Your task to perform on an android device: turn off notifications settings in the gmail app Image 0: 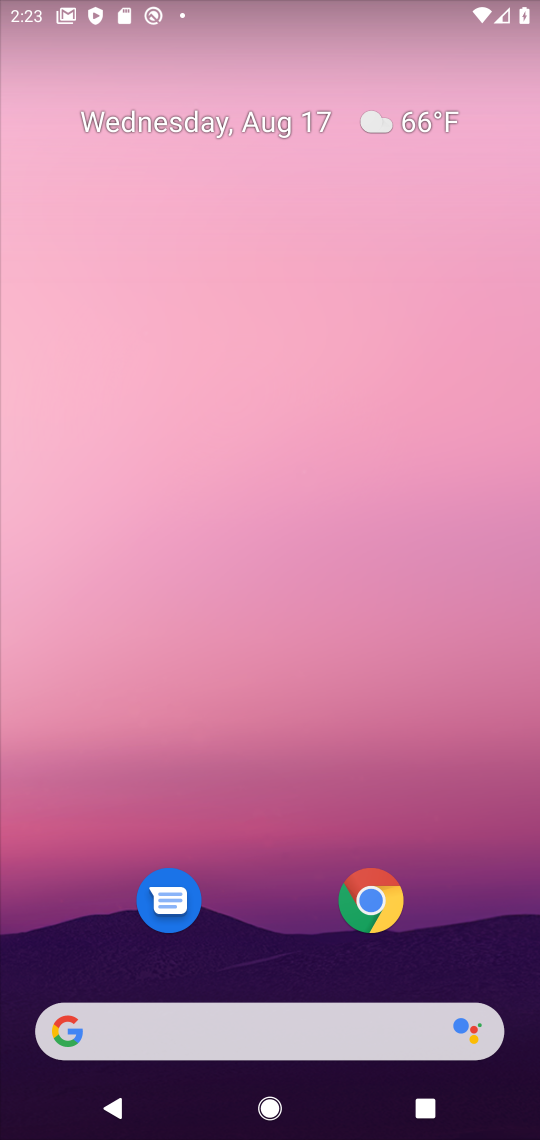
Step 0: press home button
Your task to perform on an android device: turn off notifications settings in the gmail app Image 1: 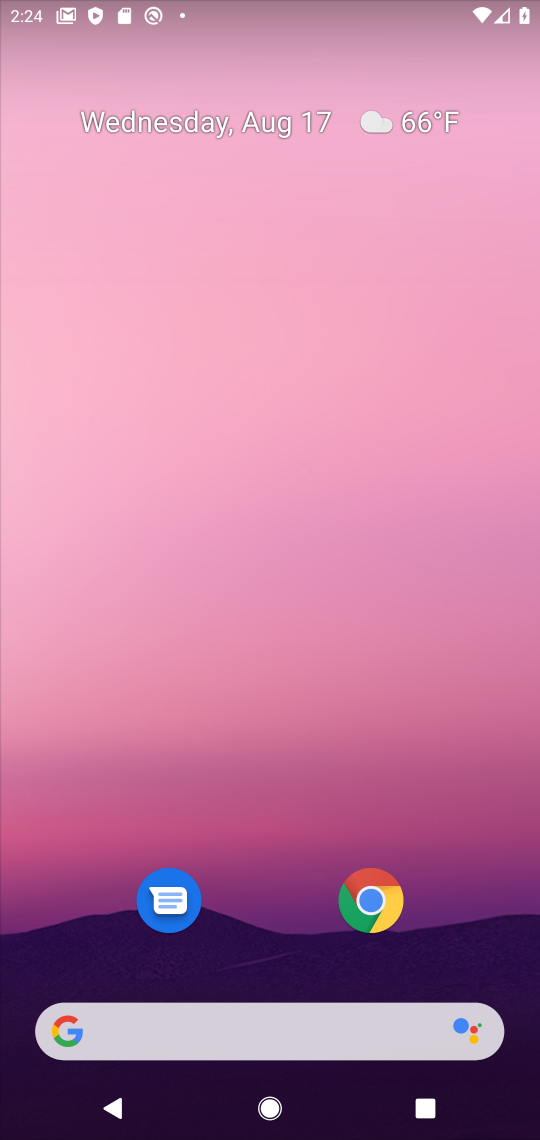
Step 1: drag from (262, 776) to (294, 269)
Your task to perform on an android device: turn off notifications settings in the gmail app Image 2: 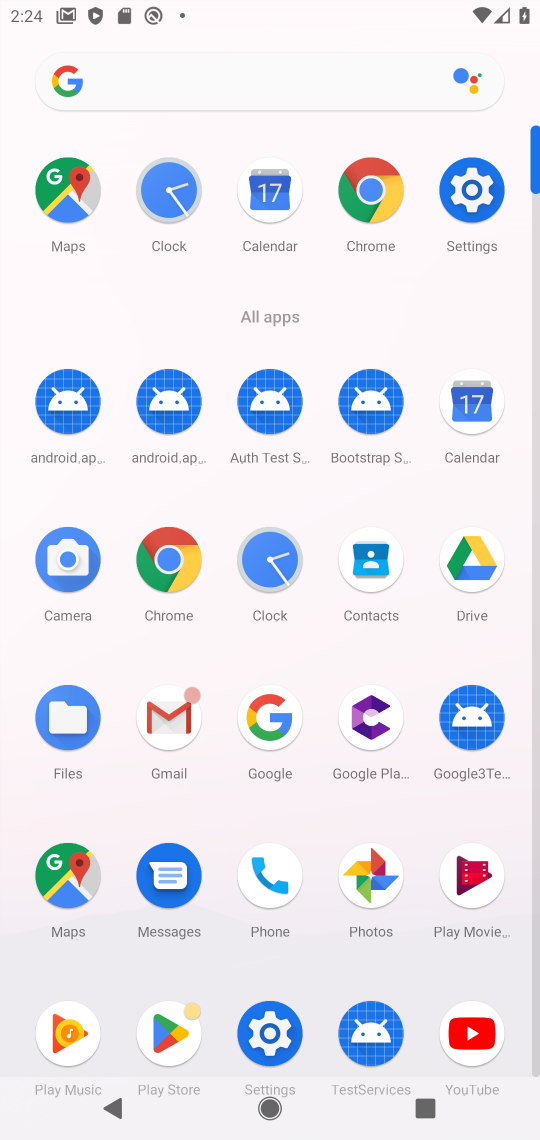
Step 2: click (162, 722)
Your task to perform on an android device: turn off notifications settings in the gmail app Image 3: 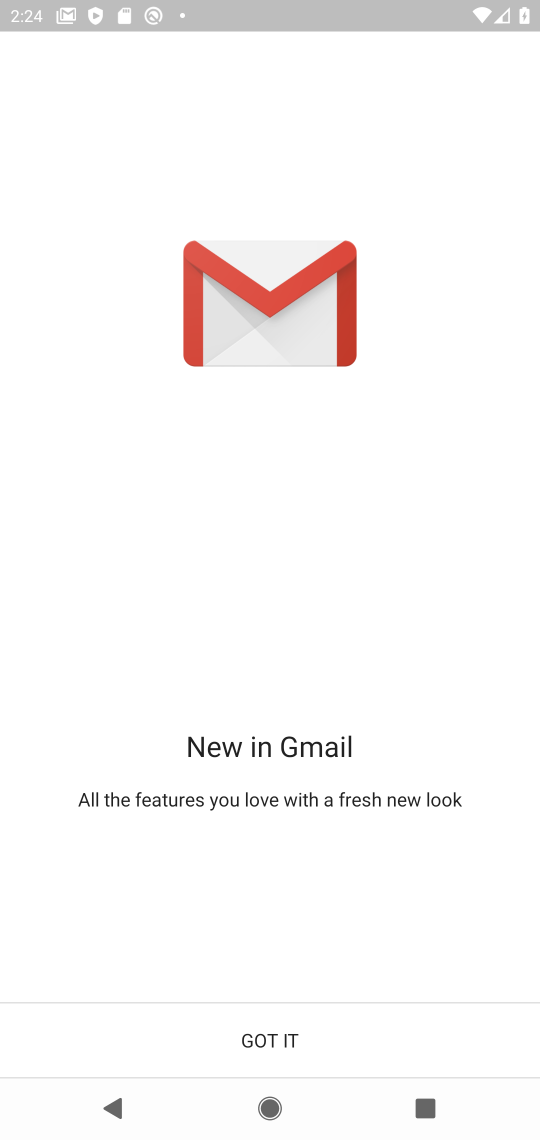
Step 3: click (276, 1034)
Your task to perform on an android device: turn off notifications settings in the gmail app Image 4: 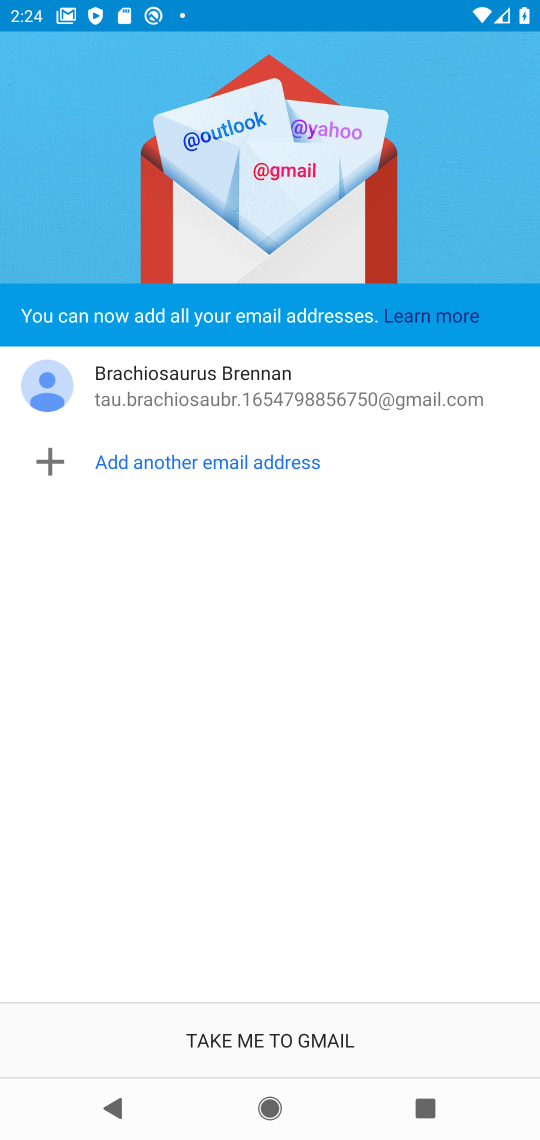
Step 4: click (278, 1034)
Your task to perform on an android device: turn off notifications settings in the gmail app Image 5: 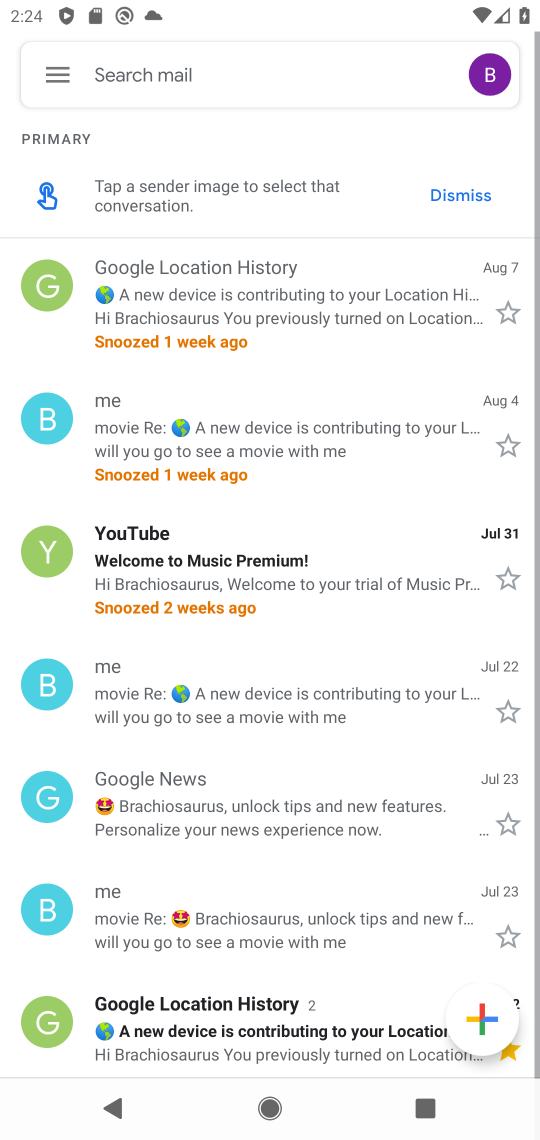
Step 5: click (63, 69)
Your task to perform on an android device: turn off notifications settings in the gmail app Image 6: 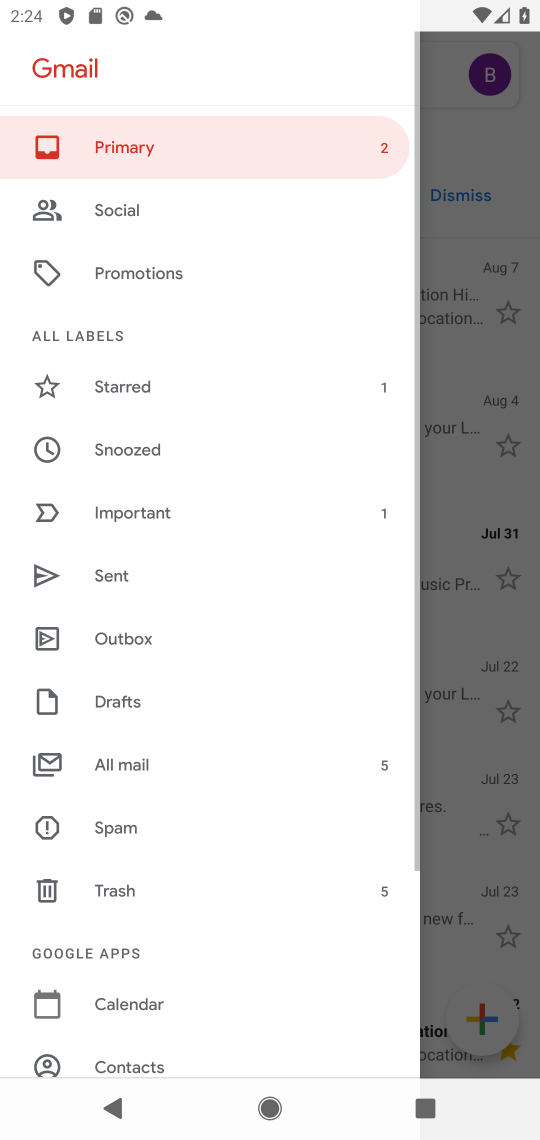
Step 6: drag from (189, 901) to (385, 0)
Your task to perform on an android device: turn off notifications settings in the gmail app Image 7: 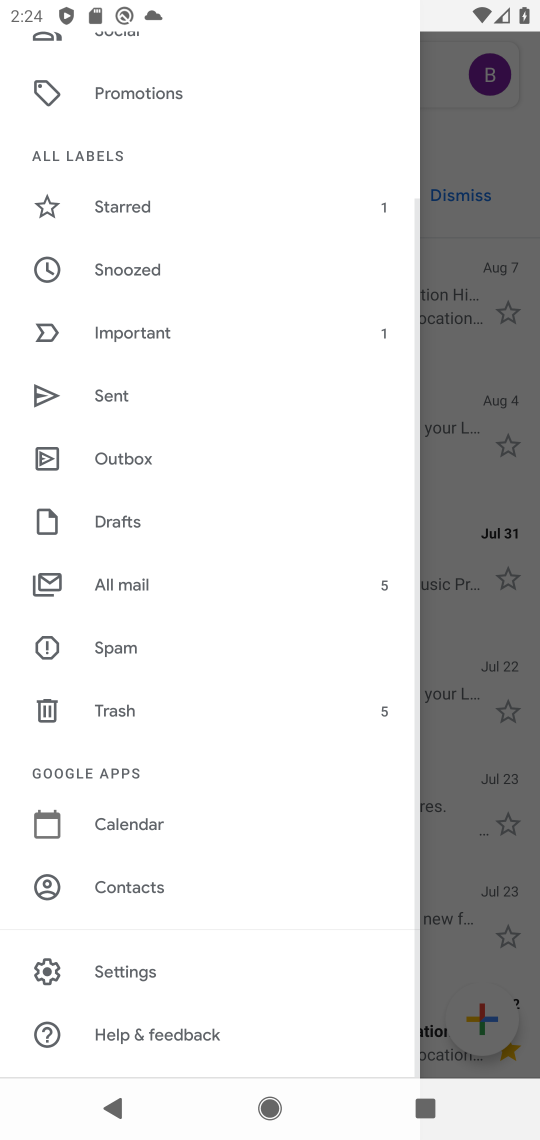
Step 7: click (135, 972)
Your task to perform on an android device: turn off notifications settings in the gmail app Image 8: 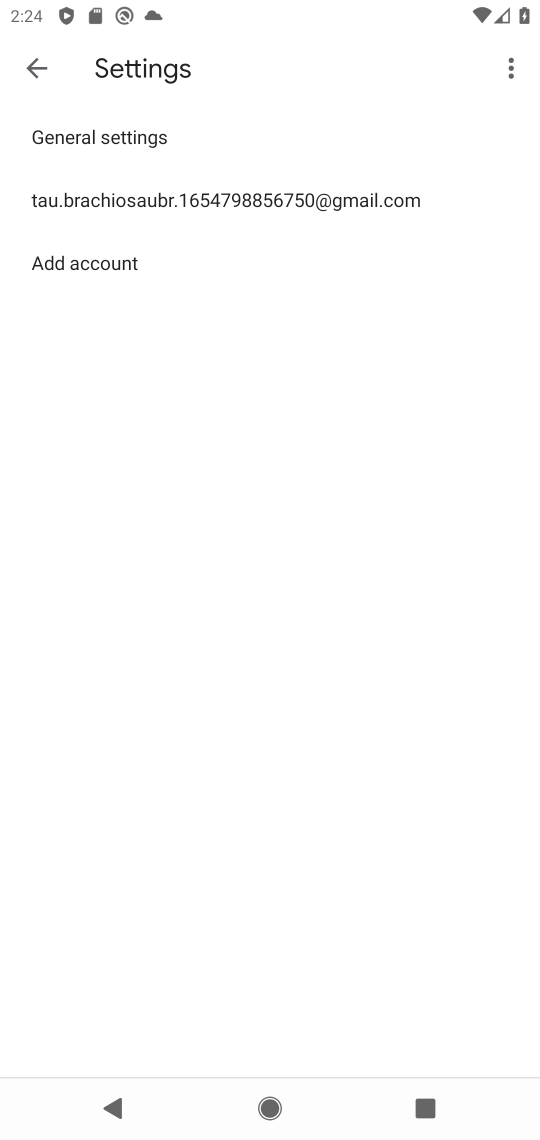
Step 8: click (260, 187)
Your task to perform on an android device: turn off notifications settings in the gmail app Image 9: 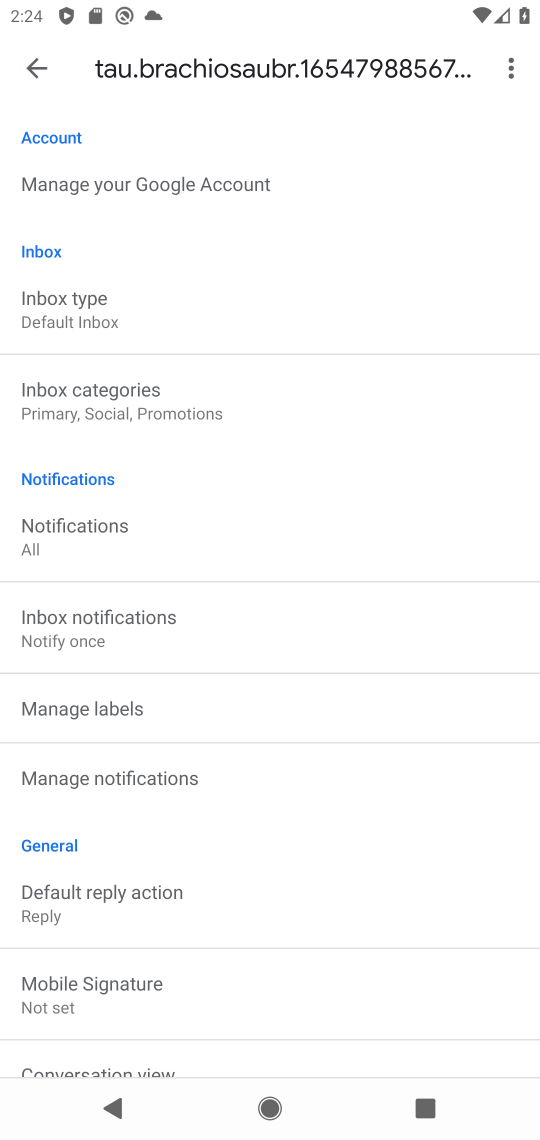
Step 9: click (96, 530)
Your task to perform on an android device: turn off notifications settings in the gmail app Image 10: 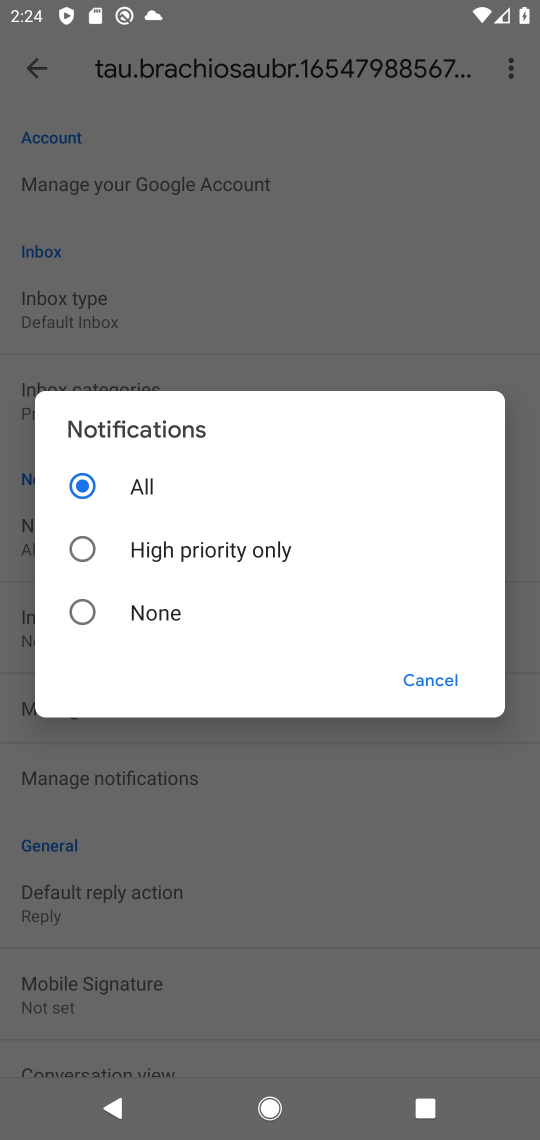
Step 10: click (70, 611)
Your task to perform on an android device: turn off notifications settings in the gmail app Image 11: 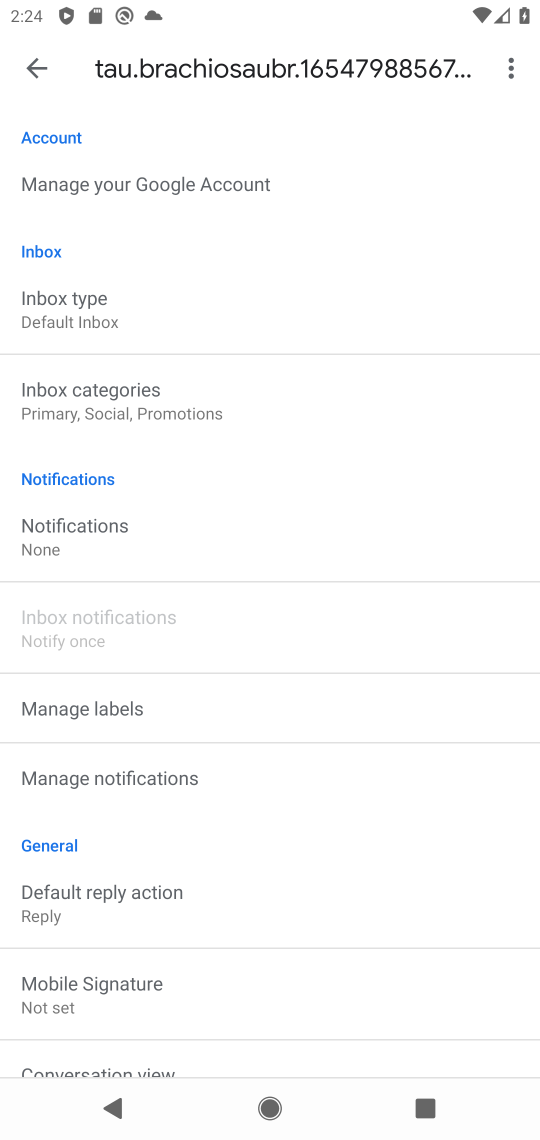
Step 11: task complete